Your task to perform on an android device: allow cookies in the chrome app Image 0: 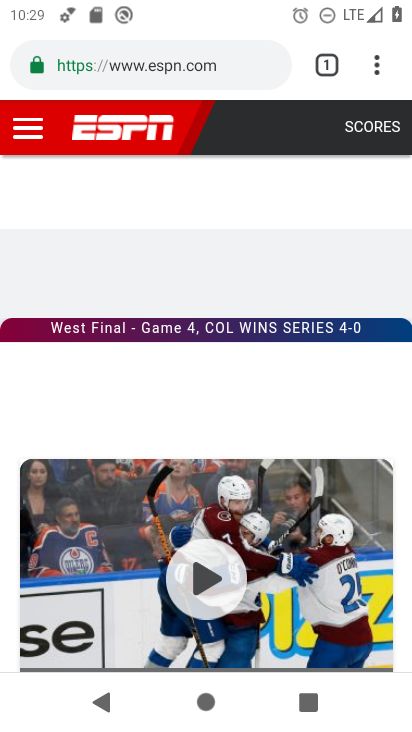
Step 0: press home button
Your task to perform on an android device: allow cookies in the chrome app Image 1: 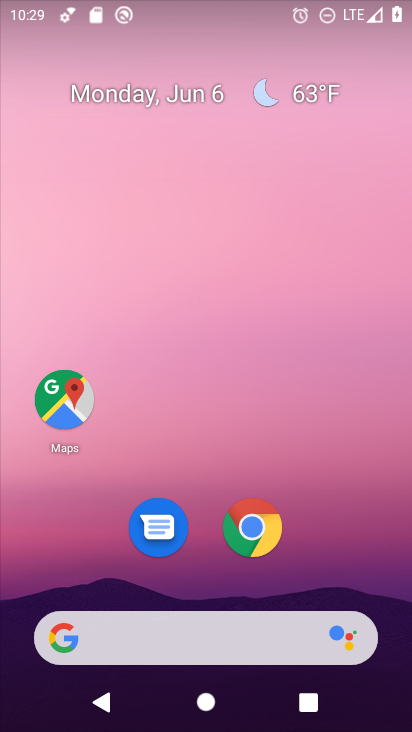
Step 1: drag from (330, 570) to (364, 194)
Your task to perform on an android device: allow cookies in the chrome app Image 2: 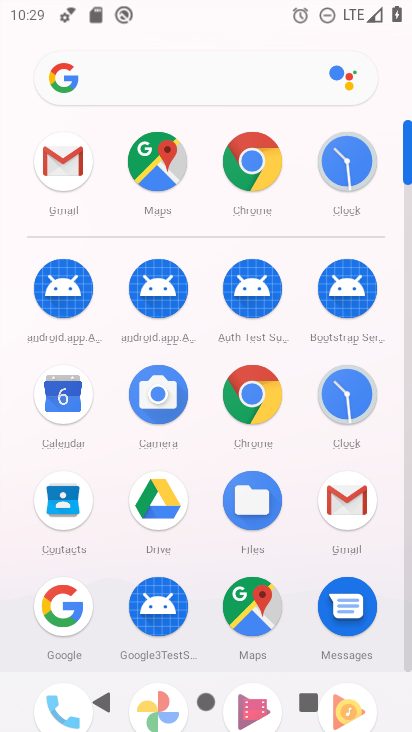
Step 2: click (258, 399)
Your task to perform on an android device: allow cookies in the chrome app Image 3: 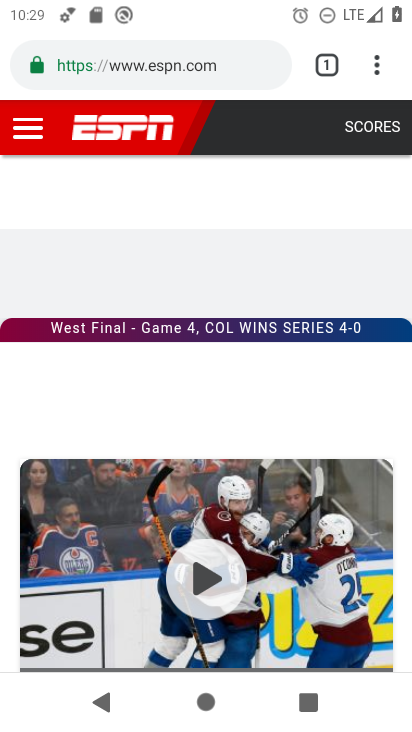
Step 3: click (380, 72)
Your task to perform on an android device: allow cookies in the chrome app Image 4: 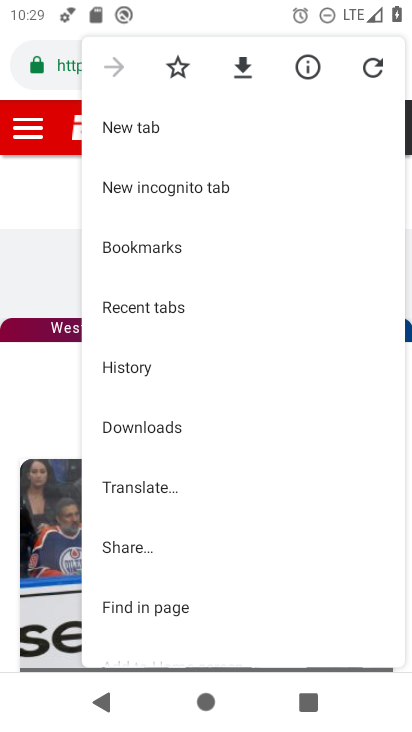
Step 4: drag from (282, 488) to (315, 332)
Your task to perform on an android device: allow cookies in the chrome app Image 5: 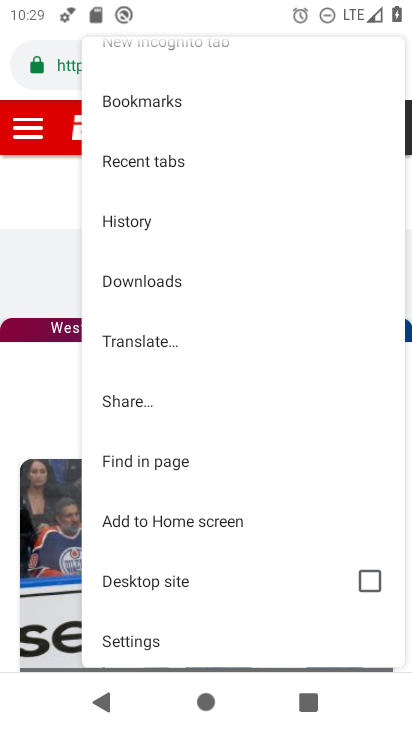
Step 5: drag from (304, 572) to (335, 383)
Your task to perform on an android device: allow cookies in the chrome app Image 6: 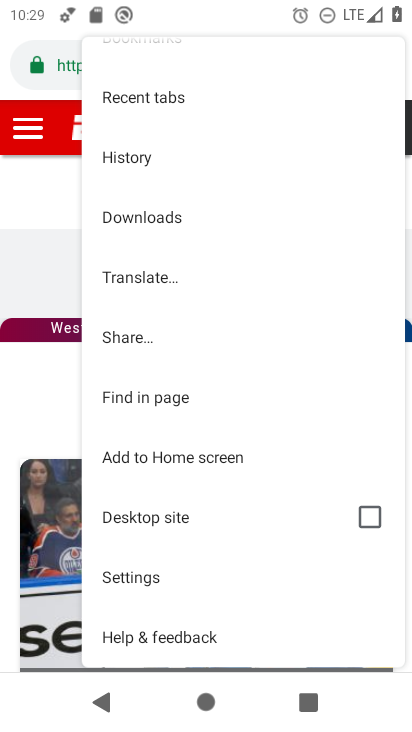
Step 6: click (152, 583)
Your task to perform on an android device: allow cookies in the chrome app Image 7: 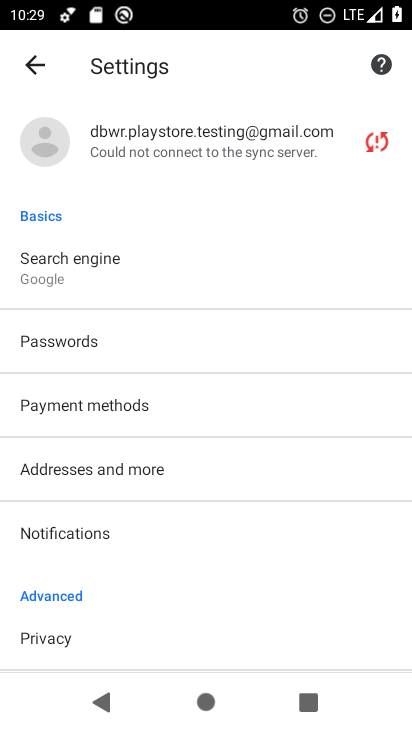
Step 7: drag from (312, 521) to (339, 333)
Your task to perform on an android device: allow cookies in the chrome app Image 8: 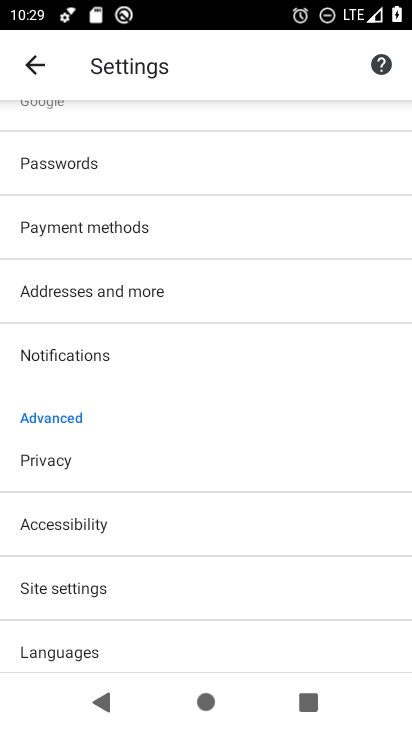
Step 8: drag from (310, 518) to (326, 348)
Your task to perform on an android device: allow cookies in the chrome app Image 9: 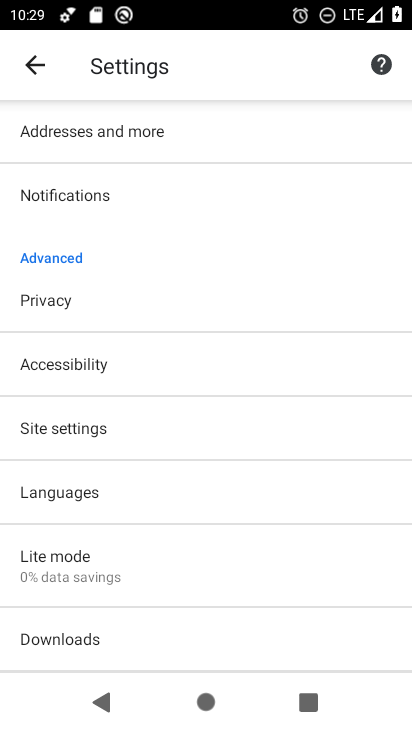
Step 9: click (278, 440)
Your task to perform on an android device: allow cookies in the chrome app Image 10: 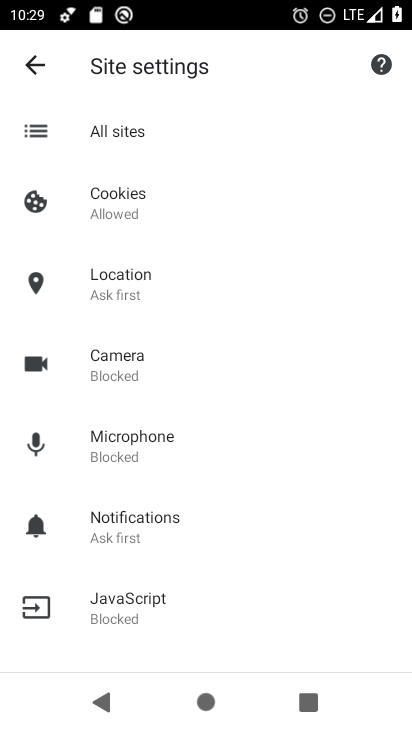
Step 10: drag from (303, 280) to (290, 384)
Your task to perform on an android device: allow cookies in the chrome app Image 11: 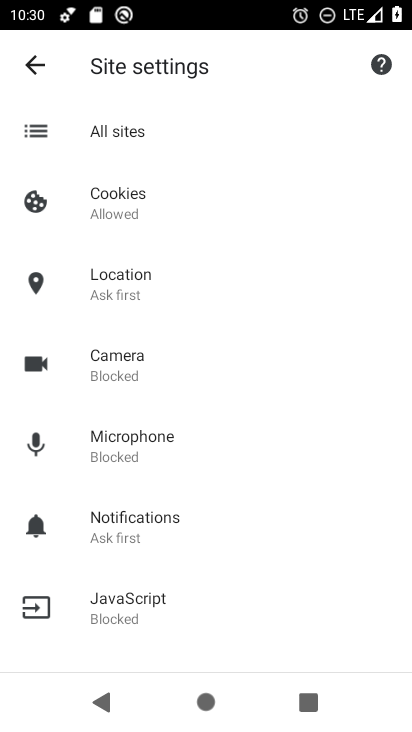
Step 11: click (179, 210)
Your task to perform on an android device: allow cookies in the chrome app Image 12: 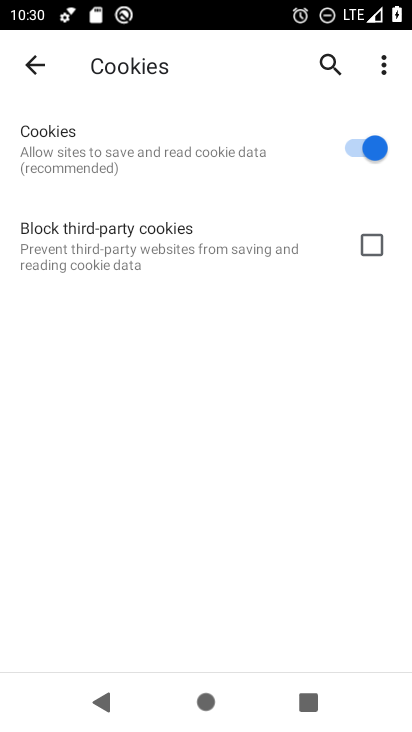
Step 12: task complete